Your task to perform on an android device: Open Google Maps Image 0: 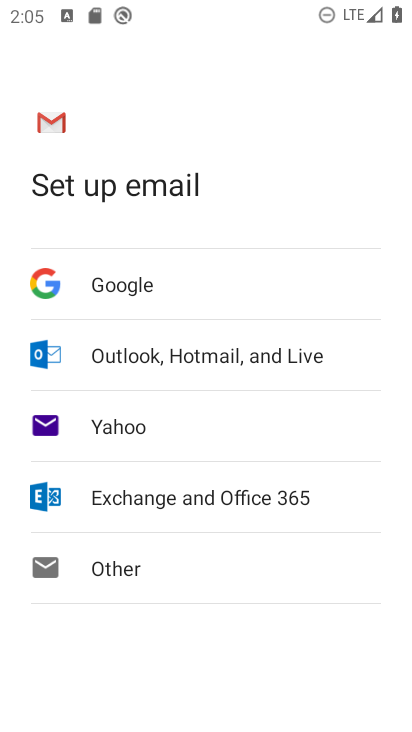
Step 0: press home button
Your task to perform on an android device: Open Google Maps Image 1: 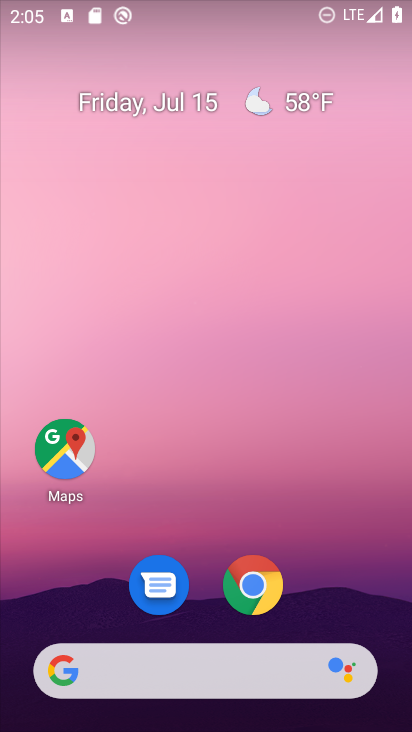
Step 1: click (57, 445)
Your task to perform on an android device: Open Google Maps Image 2: 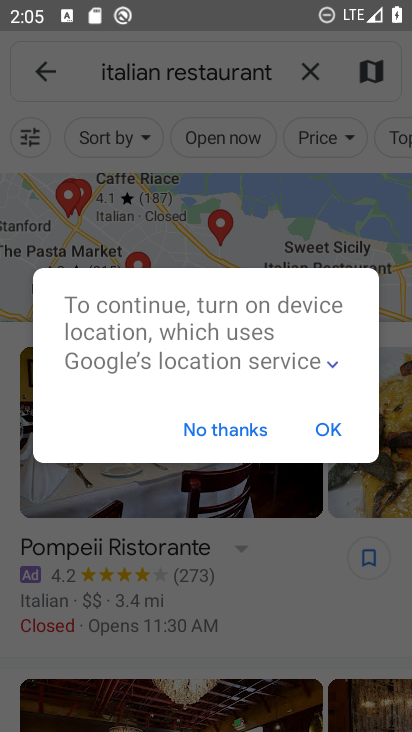
Step 2: click (325, 424)
Your task to perform on an android device: Open Google Maps Image 3: 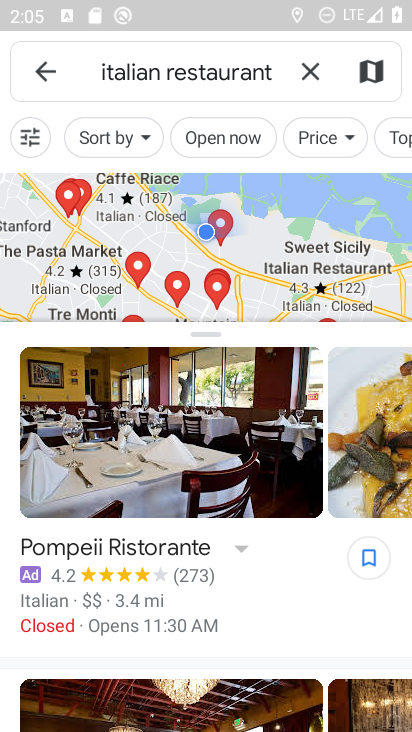
Step 3: click (312, 67)
Your task to perform on an android device: Open Google Maps Image 4: 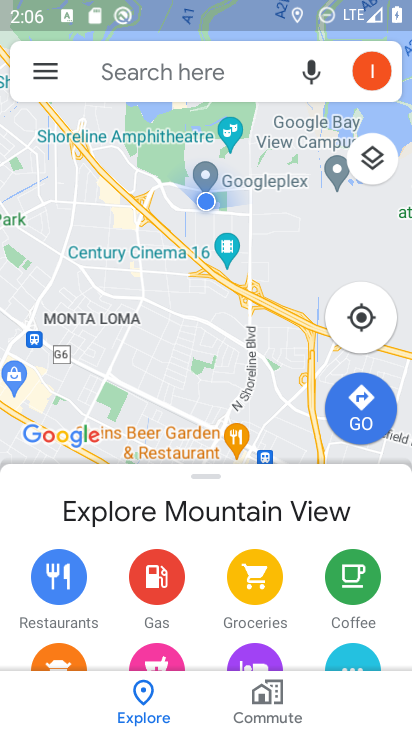
Step 4: task complete